Your task to perform on an android device: delete the emails in spam in the gmail app Image 0: 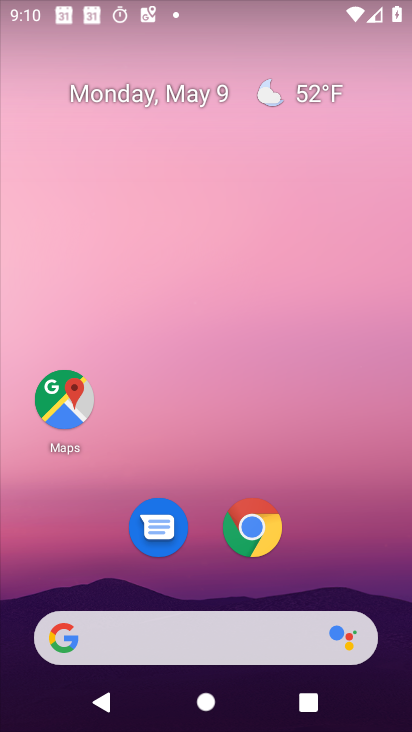
Step 0: drag from (358, 575) to (372, 212)
Your task to perform on an android device: delete the emails in spam in the gmail app Image 1: 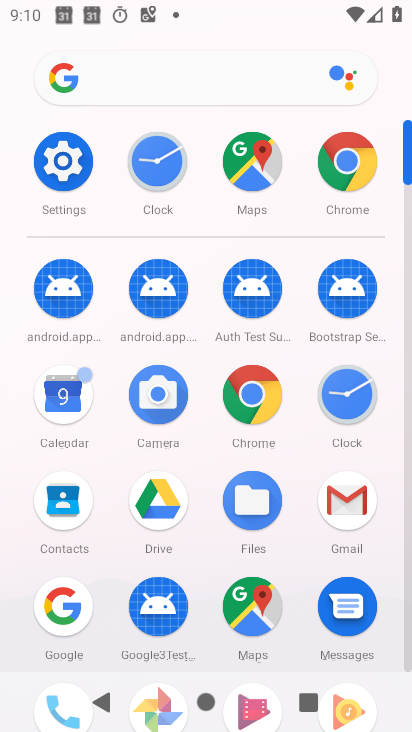
Step 1: drag from (114, 632) to (172, 337)
Your task to perform on an android device: delete the emails in spam in the gmail app Image 2: 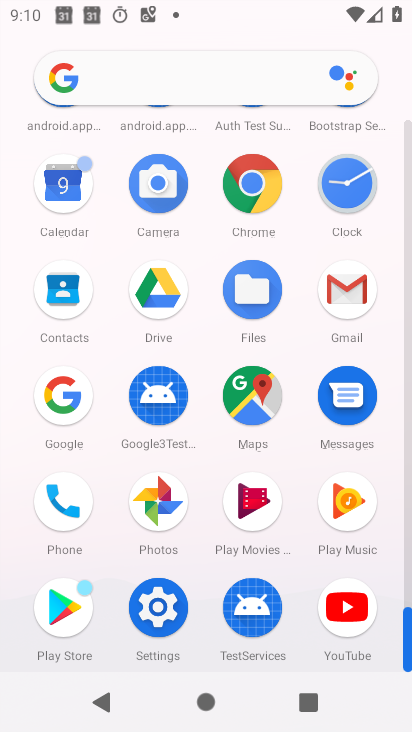
Step 2: click (377, 297)
Your task to perform on an android device: delete the emails in spam in the gmail app Image 3: 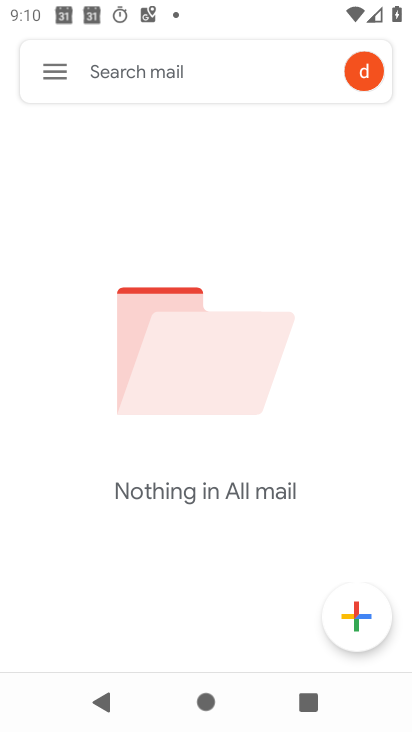
Step 3: click (52, 86)
Your task to perform on an android device: delete the emails in spam in the gmail app Image 4: 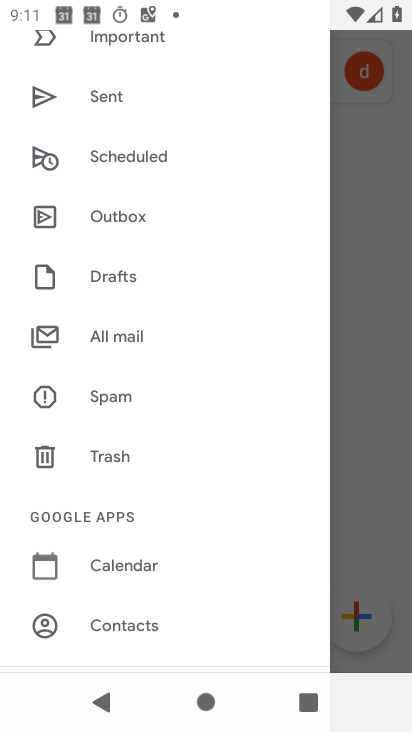
Step 4: click (128, 402)
Your task to perform on an android device: delete the emails in spam in the gmail app Image 5: 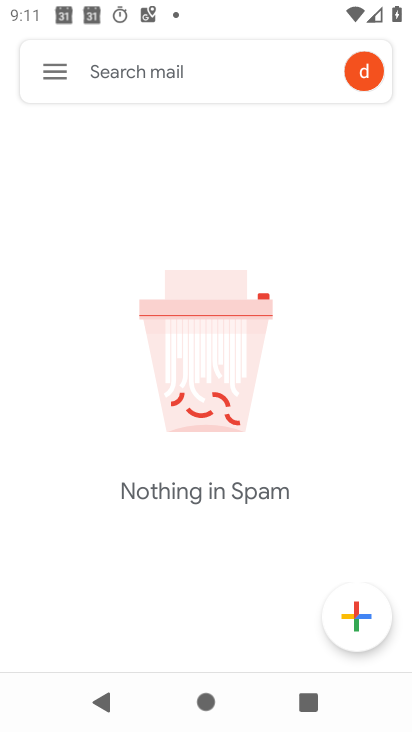
Step 5: task complete